Your task to perform on an android device: set the timer Image 0: 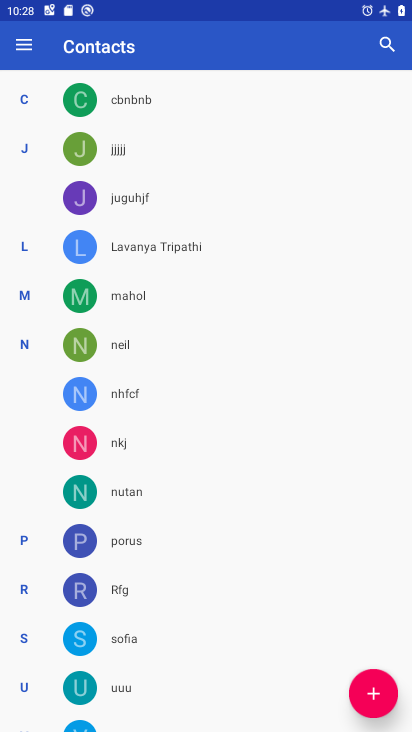
Step 0: press home button
Your task to perform on an android device: set the timer Image 1: 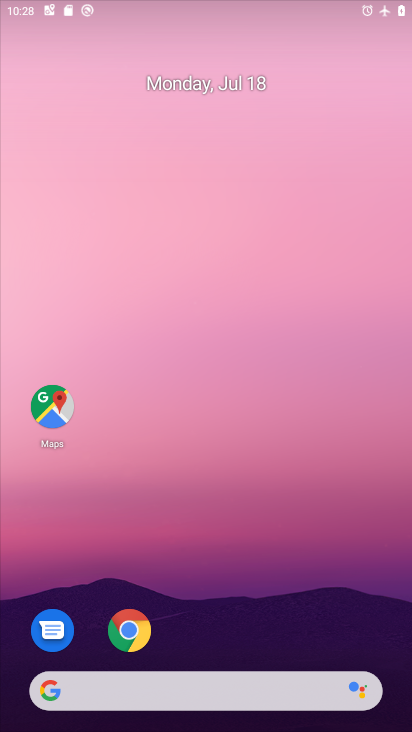
Step 1: drag from (203, 630) to (206, 217)
Your task to perform on an android device: set the timer Image 2: 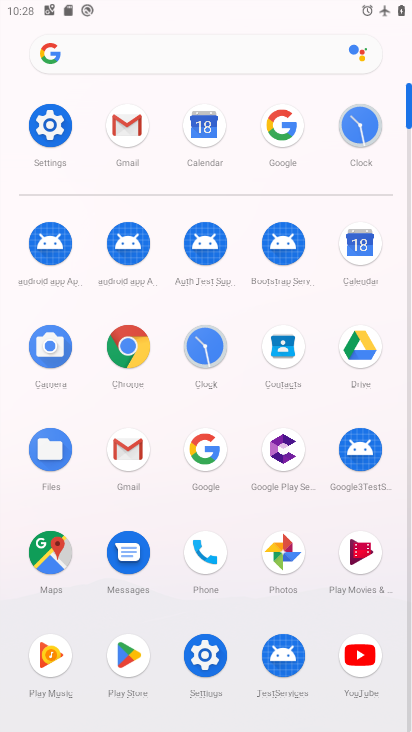
Step 2: click (346, 120)
Your task to perform on an android device: set the timer Image 3: 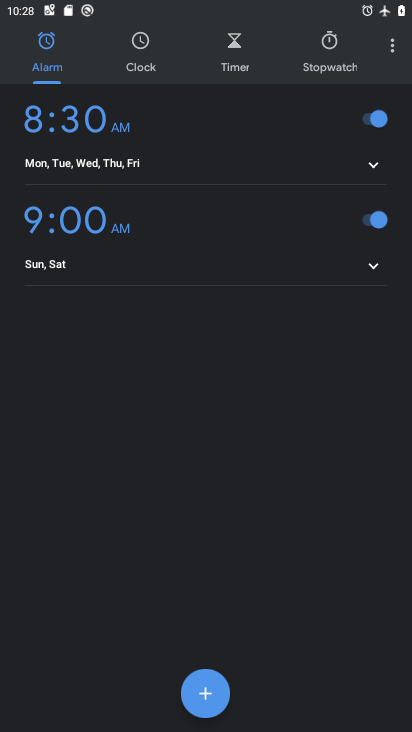
Step 3: click (230, 45)
Your task to perform on an android device: set the timer Image 4: 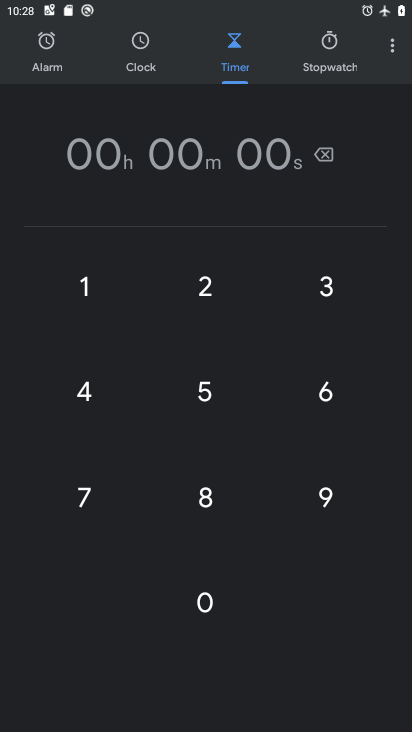
Step 4: click (265, 171)
Your task to perform on an android device: set the timer Image 5: 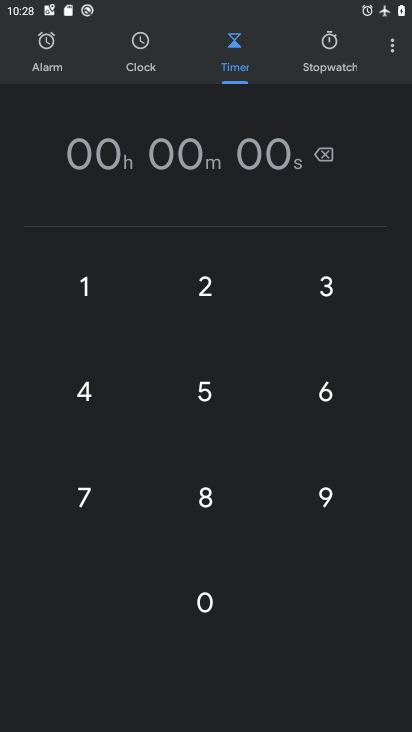
Step 5: type "11"
Your task to perform on an android device: set the timer Image 6: 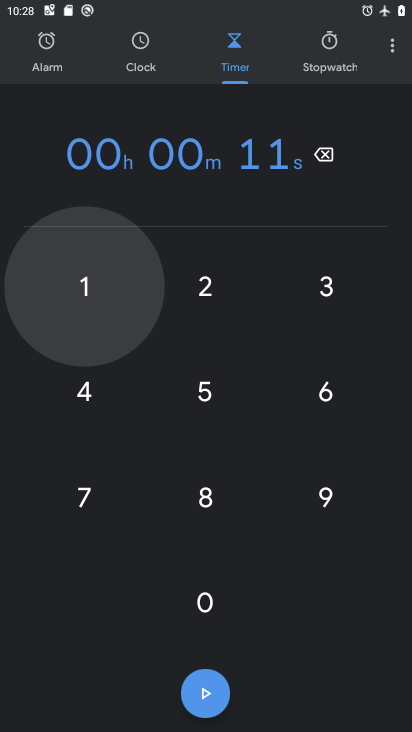
Step 6: click (216, 694)
Your task to perform on an android device: set the timer Image 7: 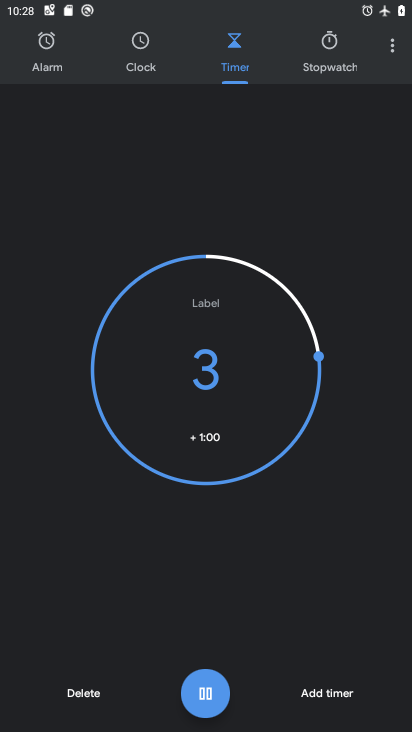
Step 7: task complete